Your task to perform on an android device: Go to ESPN.com Image 0: 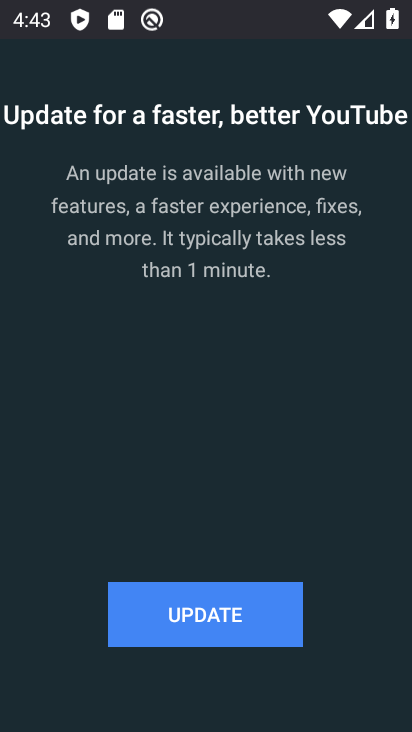
Step 0: press back button
Your task to perform on an android device: Go to ESPN.com Image 1: 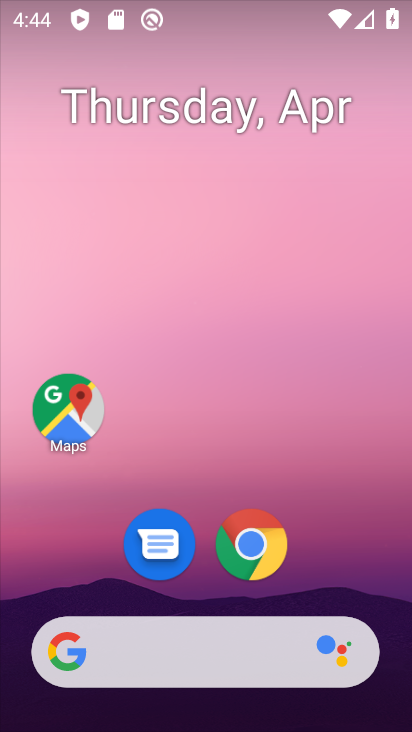
Step 1: click (284, 547)
Your task to perform on an android device: Go to ESPN.com Image 2: 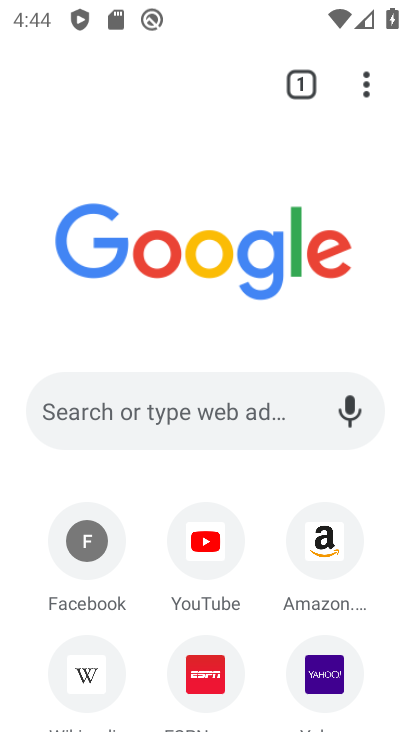
Step 2: click (213, 669)
Your task to perform on an android device: Go to ESPN.com Image 3: 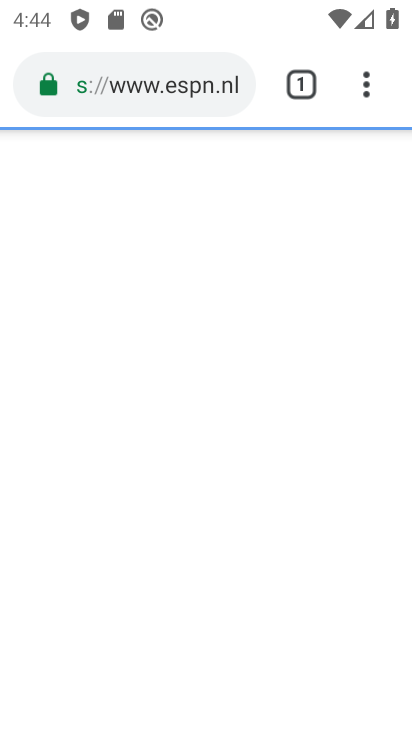
Step 3: task complete